Your task to perform on an android device: turn on priority inbox in the gmail app Image 0: 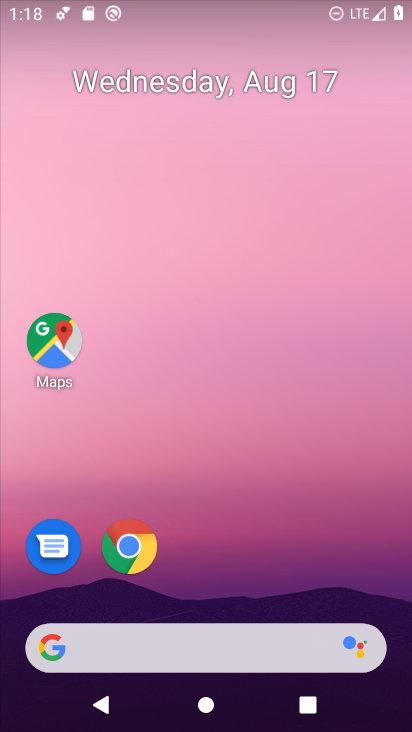
Step 0: drag from (273, 567) to (270, 110)
Your task to perform on an android device: turn on priority inbox in the gmail app Image 1: 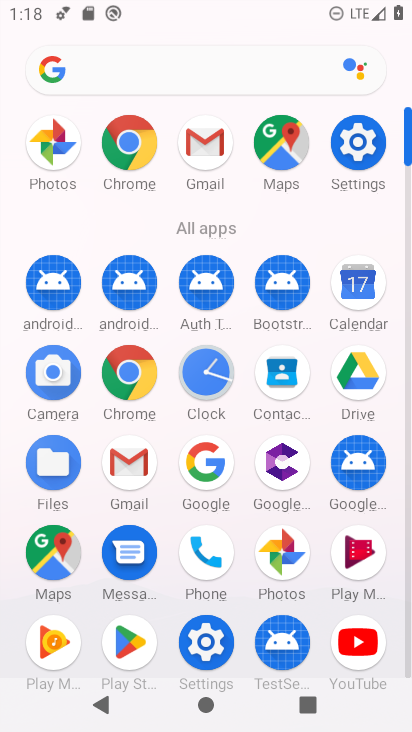
Step 1: click (207, 141)
Your task to perform on an android device: turn on priority inbox in the gmail app Image 2: 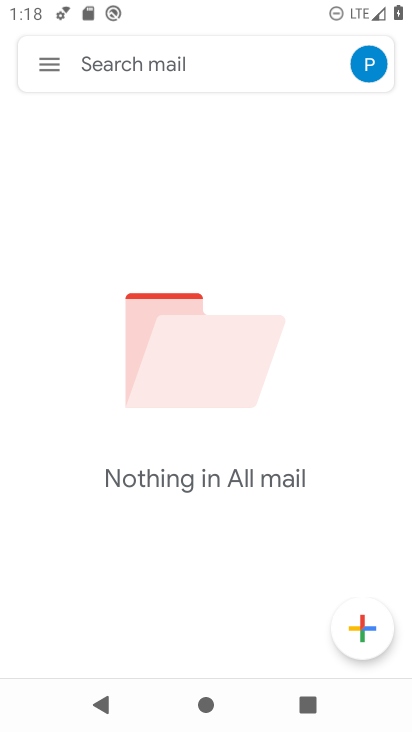
Step 2: click (48, 60)
Your task to perform on an android device: turn on priority inbox in the gmail app Image 3: 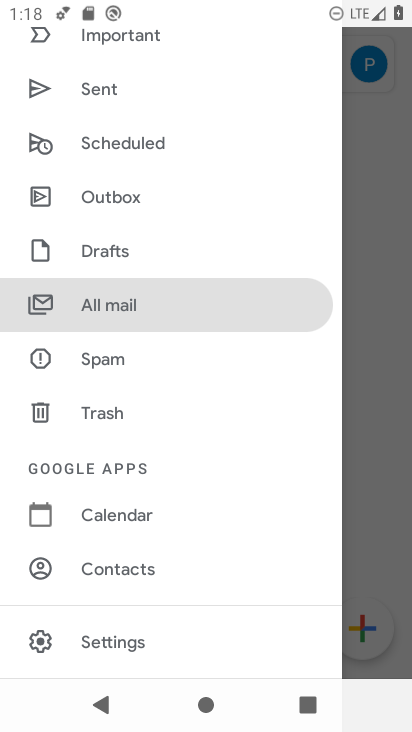
Step 3: click (120, 641)
Your task to perform on an android device: turn on priority inbox in the gmail app Image 4: 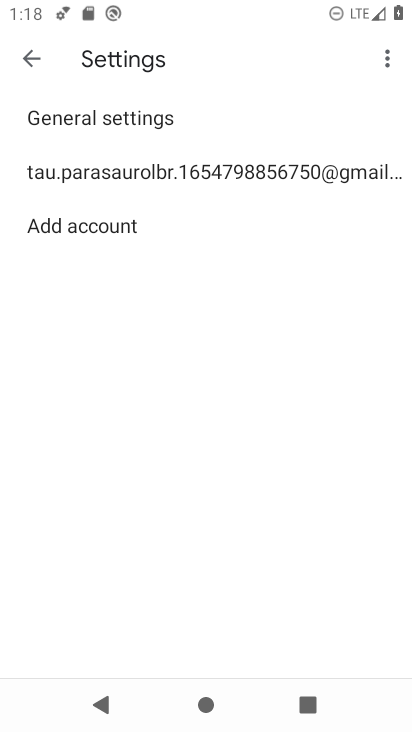
Step 4: click (134, 169)
Your task to perform on an android device: turn on priority inbox in the gmail app Image 5: 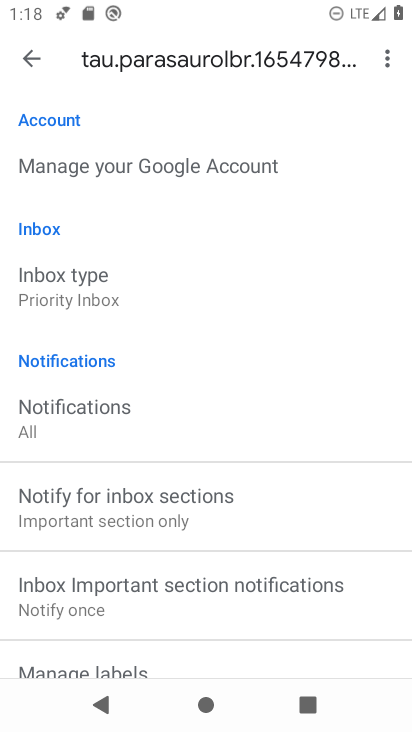
Step 5: click (77, 282)
Your task to perform on an android device: turn on priority inbox in the gmail app Image 6: 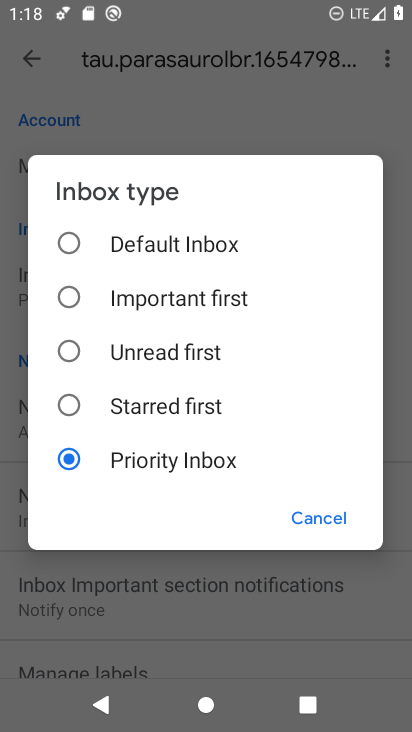
Step 6: task complete